Your task to perform on an android device: Open maps Image 0: 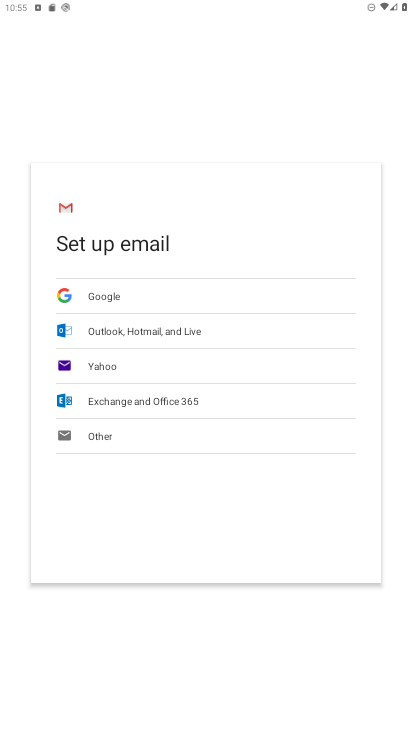
Step 0: press home button
Your task to perform on an android device: Open maps Image 1: 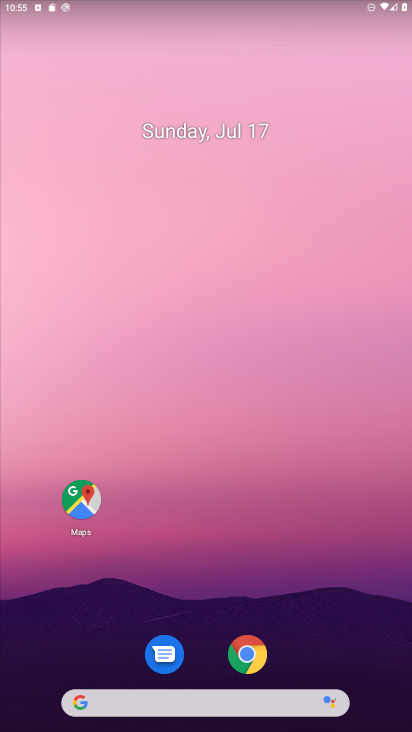
Step 1: click (99, 507)
Your task to perform on an android device: Open maps Image 2: 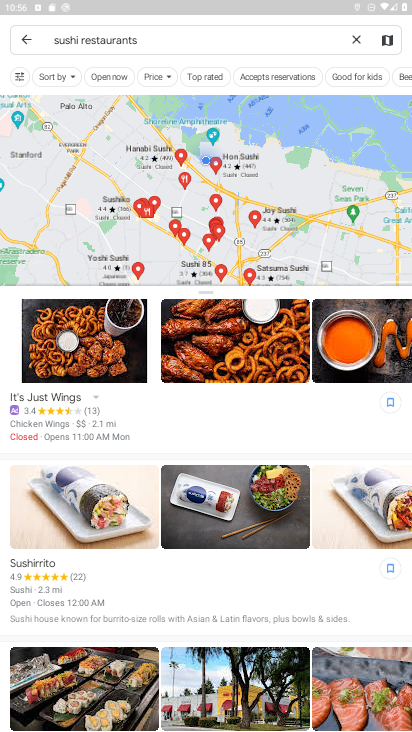
Step 2: task complete